Your task to perform on an android device: check data usage Image 0: 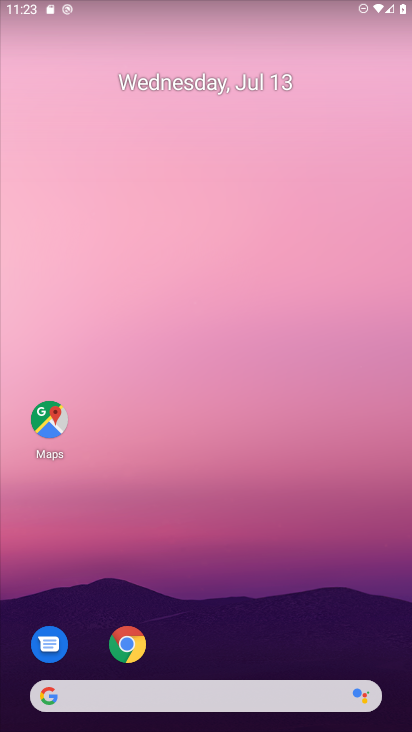
Step 0: drag from (282, 559) to (220, 47)
Your task to perform on an android device: check data usage Image 1: 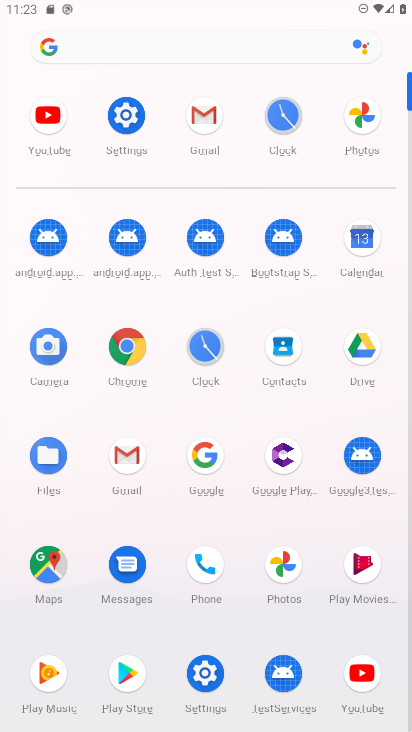
Step 1: click (127, 115)
Your task to perform on an android device: check data usage Image 2: 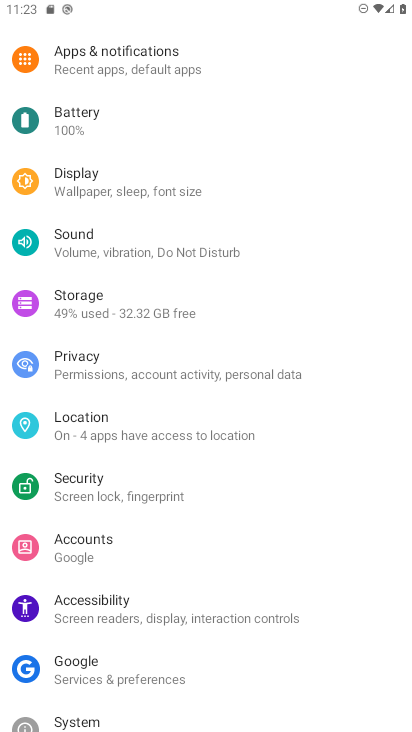
Step 2: drag from (185, 140) to (207, 638)
Your task to perform on an android device: check data usage Image 3: 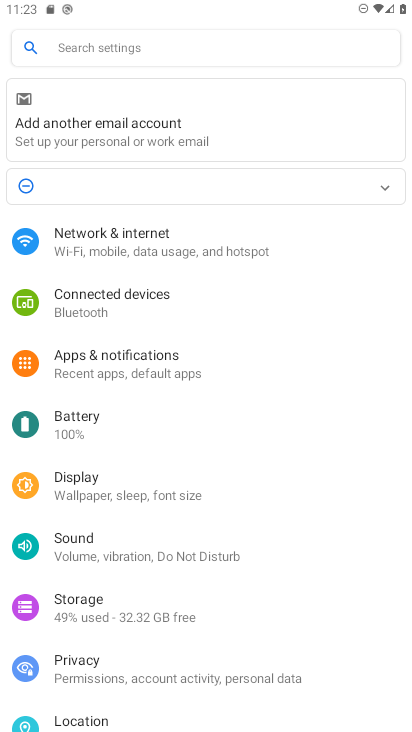
Step 3: click (128, 229)
Your task to perform on an android device: check data usage Image 4: 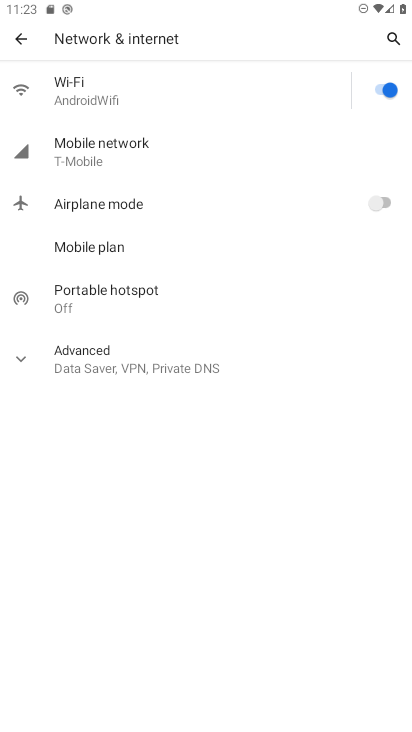
Step 4: click (113, 144)
Your task to perform on an android device: check data usage Image 5: 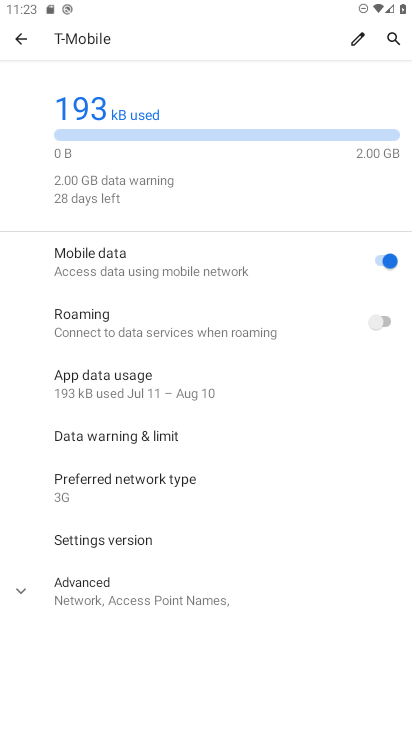
Step 5: task complete